Your task to perform on an android device: uninstall "Messenger Lite" Image 0: 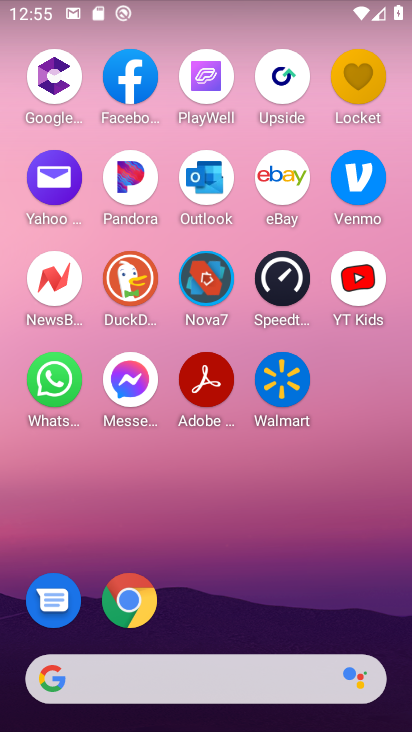
Step 0: drag from (238, 619) to (235, 55)
Your task to perform on an android device: uninstall "Messenger Lite" Image 1: 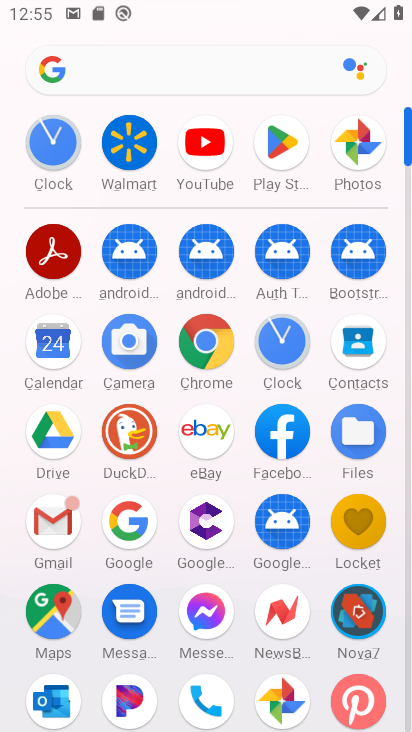
Step 1: click (286, 159)
Your task to perform on an android device: uninstall "Messenger Lite" Image 2: 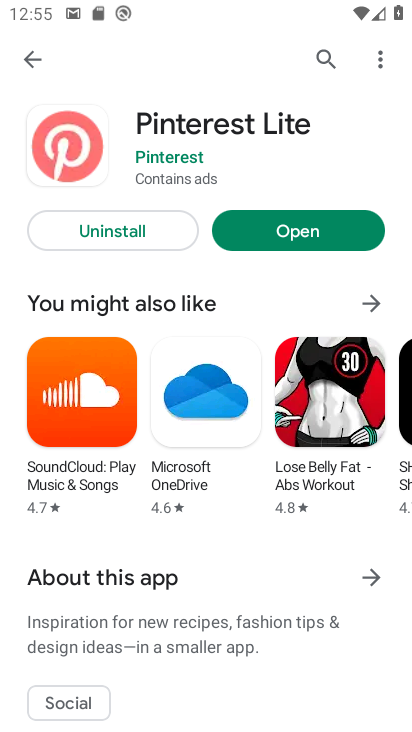
Step 2: click (334, 65)
Your task to perform on an android device: uninstall "Messenger Lite" Image 3: 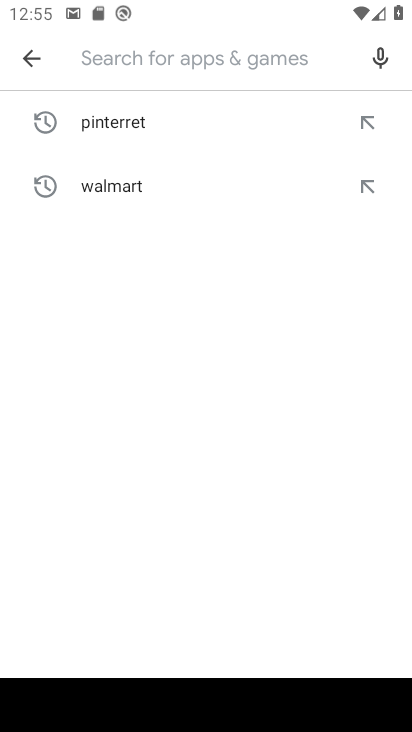
Step 3: type "messengerlite"
Your task to perform on an android device: uninstall "Messenger Lite" Image 4: 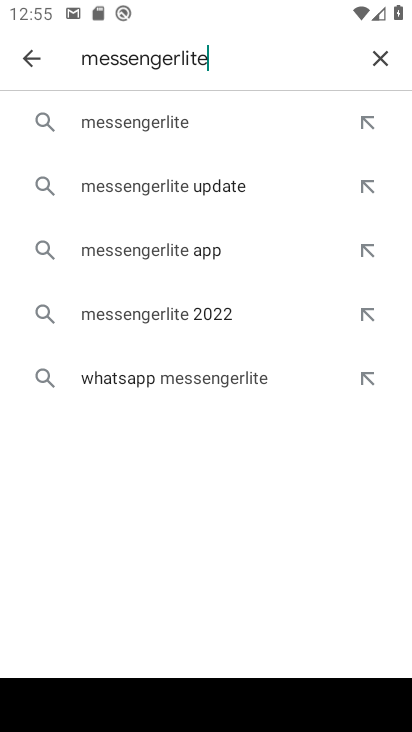
Step 4: click (198, 101)
Your task to perform on an android device: uninstall "Messenger Lite" Image 5: 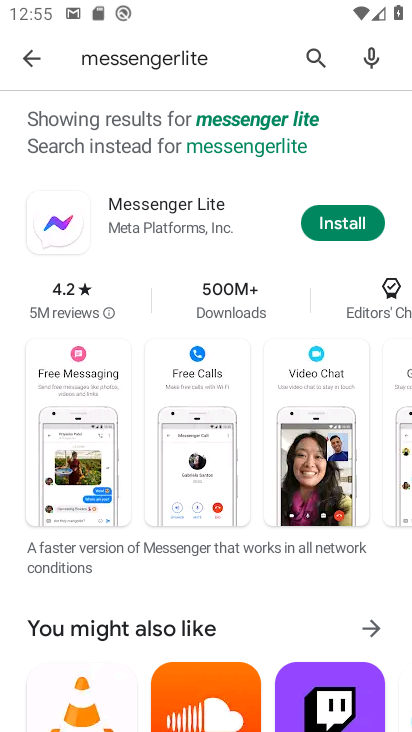
Step 5: click (320, 207)
Your task to perform on an android device: uninstall "Messenger Lite" Image 6: 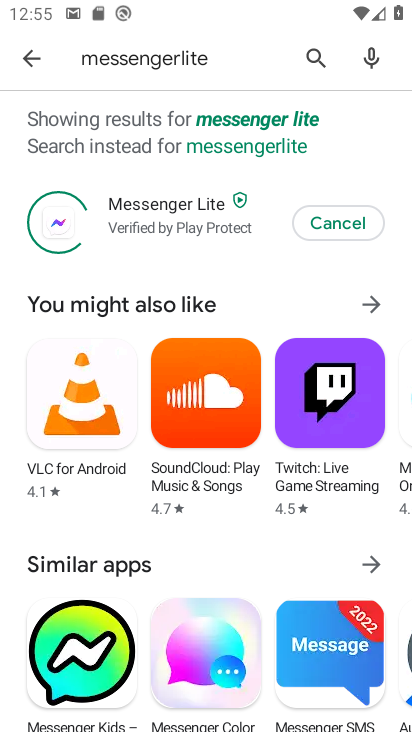
Step 6: task complete